Your task to perform on an android device: Is it going to rain this weekend? Image 0: 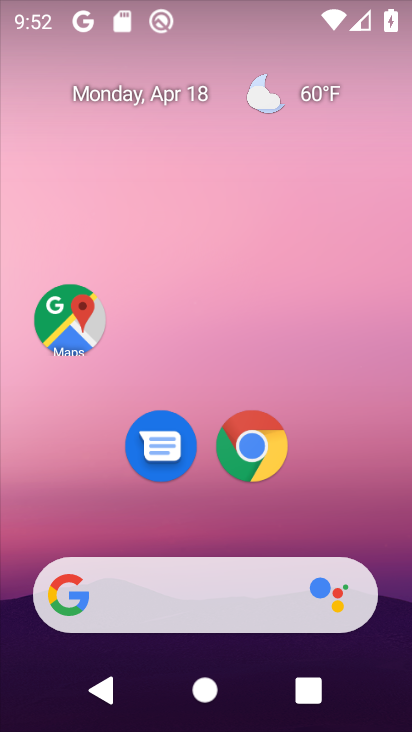
Step 0: click (214, 587)
Your task to perform on an android device: Is it going to rain this weekend? Image 1: 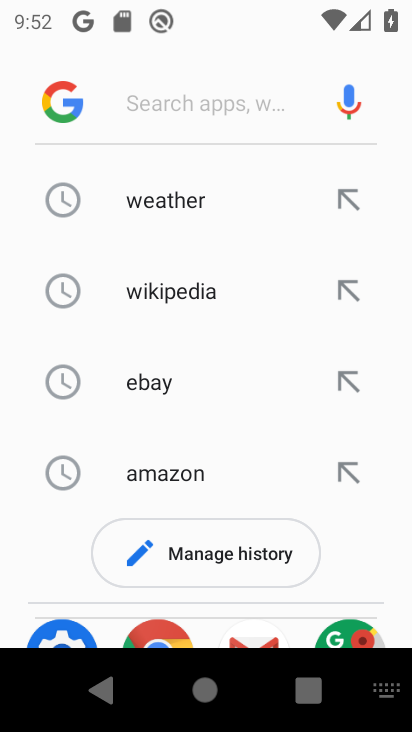
Step 1: click (168, 196)
Your task to perform on an android device: Is it going to rain this weekend? Image 2: 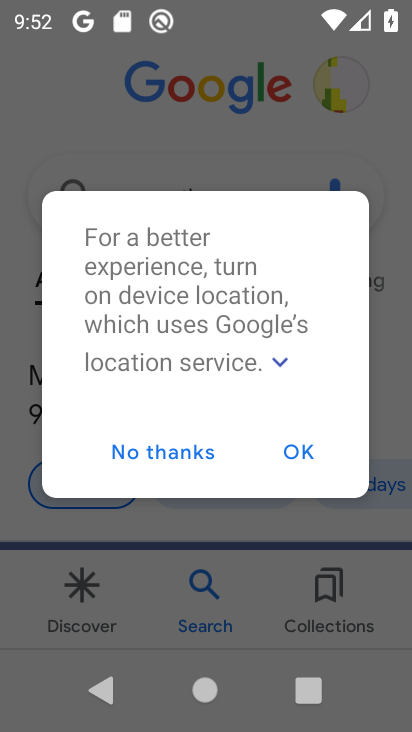
Step 2: click (173, 448)
Your task to perform on an android device: Is it going to rain this weekend? Image 3: 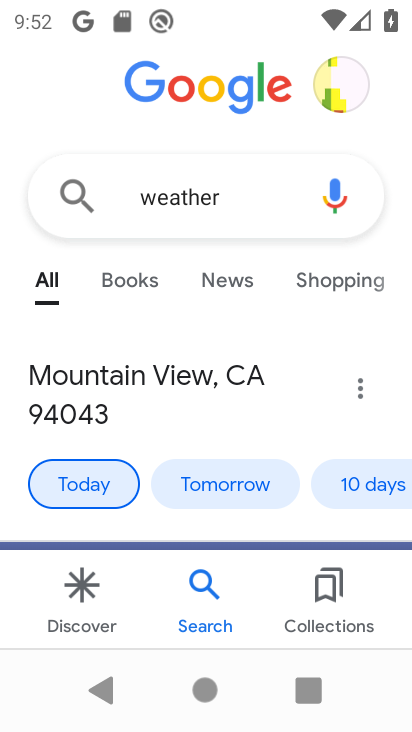
Step 3: click (363, 483)
Your task to perform on an android device: Is it going to rain this weekend? Image 4: 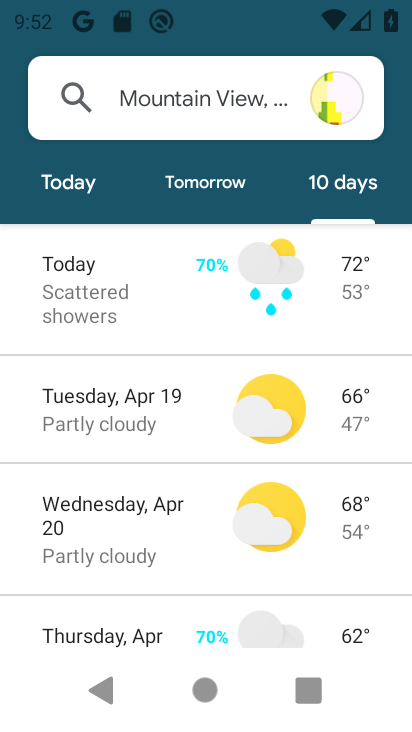
Step 4: task complete